Your task to perform on an android device: find snoozed emails in the gmail app Image 0: 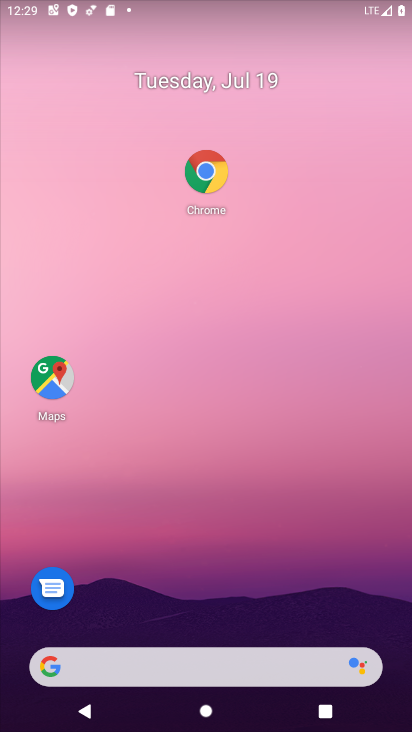
Step 0: drag from (171, 577) to (160, 64)
Your task to perform on an android device: find snoozed emails in the gmail app Image 1: 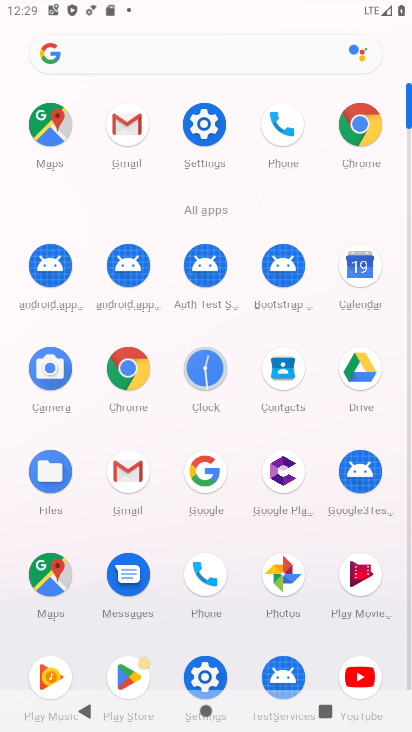
Step 1: click (135, 133)
Your task to perform on an android device: find snoozed emails in the gmail app Image 2: 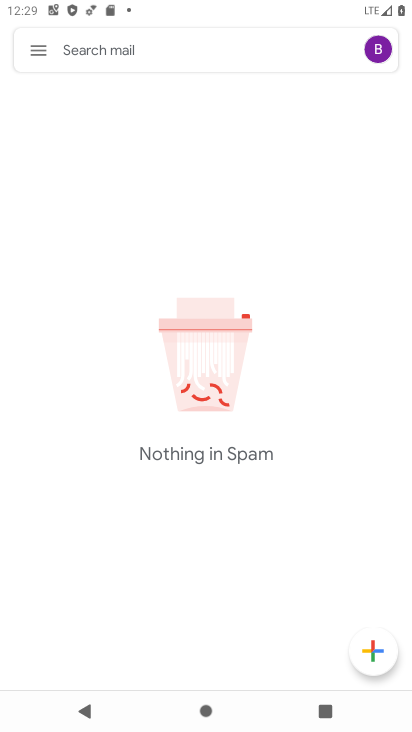
Step 2: click (40, 59)
Your task to perform on an android device: find snoozed emails in the gmail app Image 3: 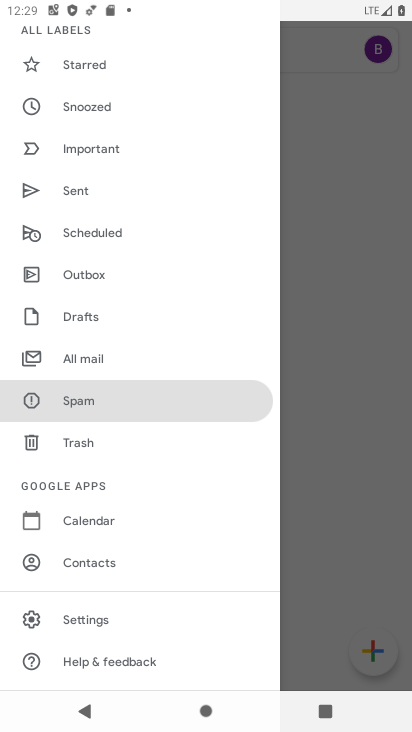
Step 3: click (100, 117)
Your task to perform on an android device: find snoozed emails in the gmail app Image 4: 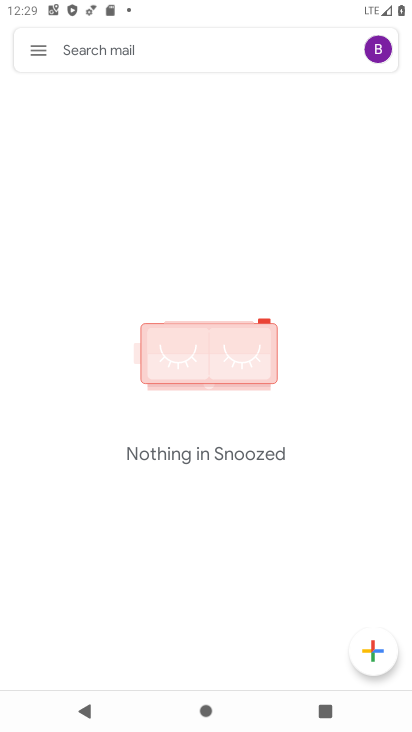
Step 4: task complete